Your task to perform on an android device: Go to Amazon Image 0: 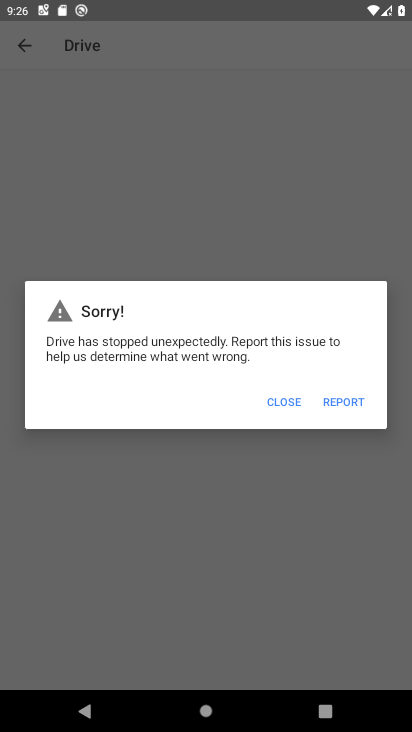
Step 0: press home button
Your task to perform on an android device: Go to Amazon Image 1: 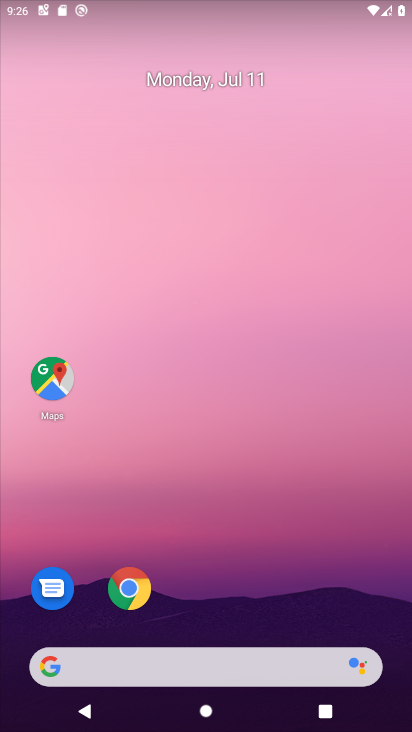
Step 1: click (142, 590)
Your task to perform on an android device: Go to Amazon Image 2: 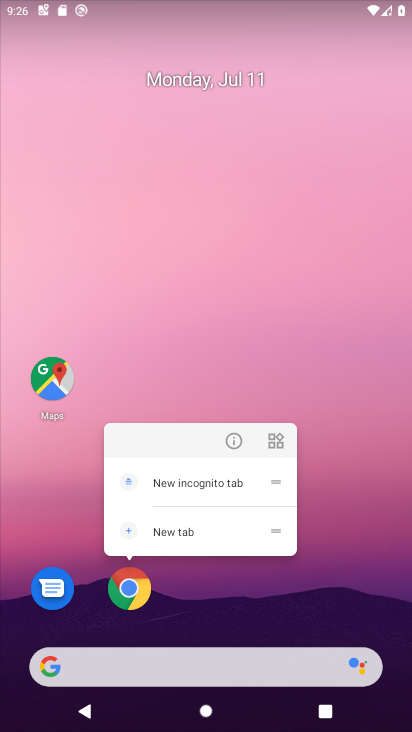
Step 2: click (142, 590)
Your task to perform on an android device: Go to Amazon Image 3: 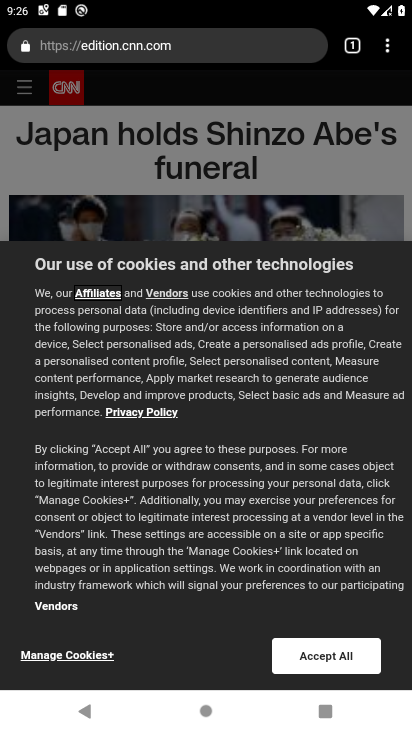
Step 3: click (390, 45)
Your task to perform on an android device: Go to Amazon Image 4: 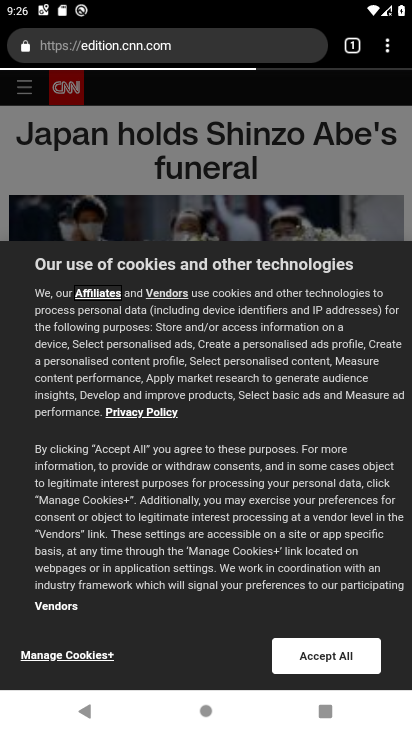
Step 4: click (397, 47)
Your task to perform on an android device: Go to Amazon Image 5: 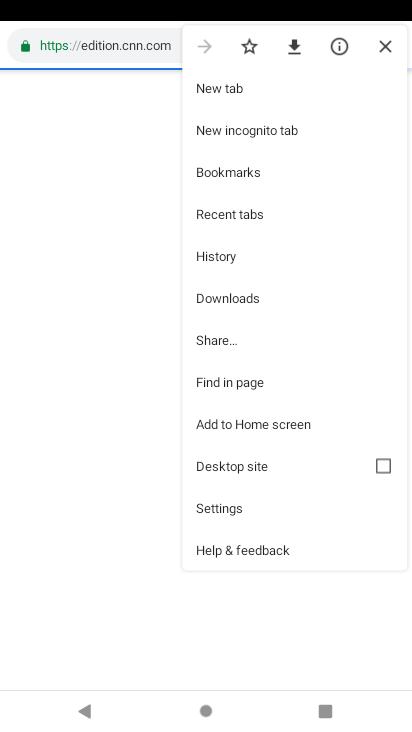
Step 5: click (223, 96)
Your task to perform on an android device: Go to Amazon Image 6: 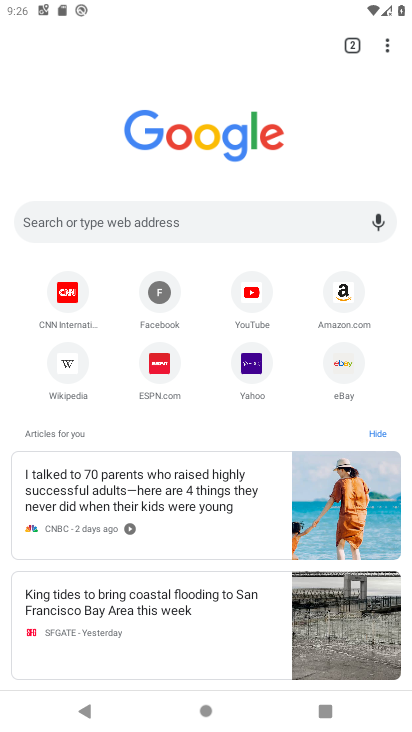
Step 6: click (324, 295)
Your task to perform on an android device: Go to Amazon Image 7: 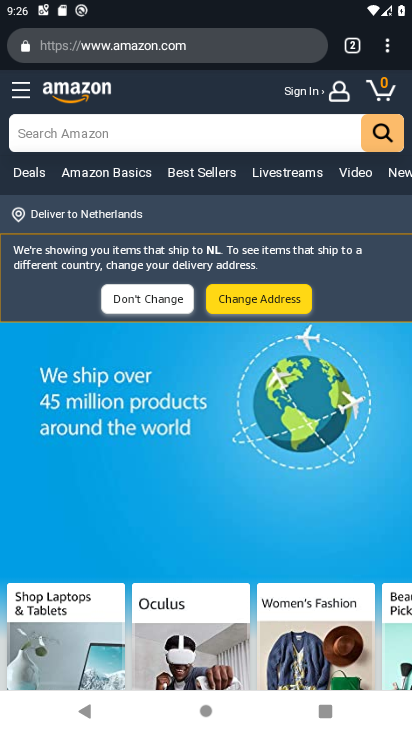
Step 7: task complete